Your task to perform on an android device: Open accessibility settings Image 0: 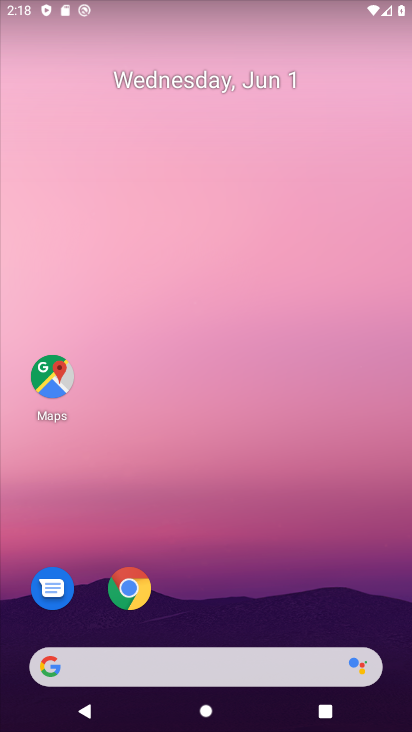
Step 0: drag from (266, 502) to (194, 19)
Your task to perform on an android device: Open accessibility settings Image 1: 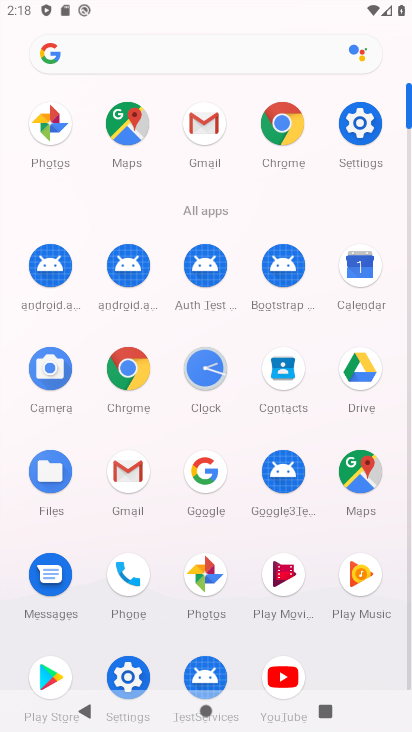
Step 1: click (364, 116)
Your task to perform on an android device: Open accessibility settings Image 2: 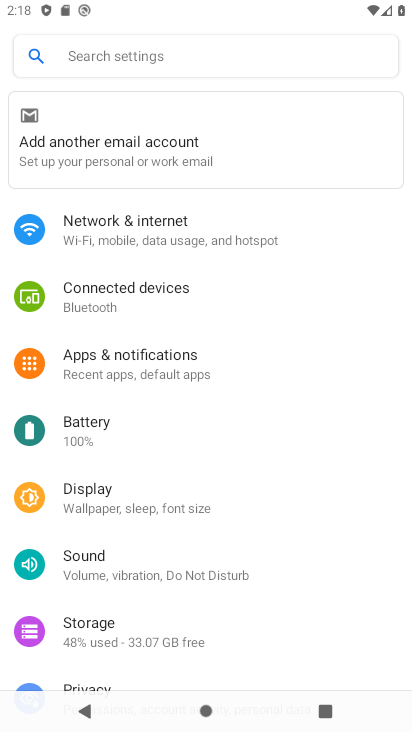
Step 2: drag from (239, 608) to (236, 280)
Your task to perform on an android device: Open accessibility settings Image 3: 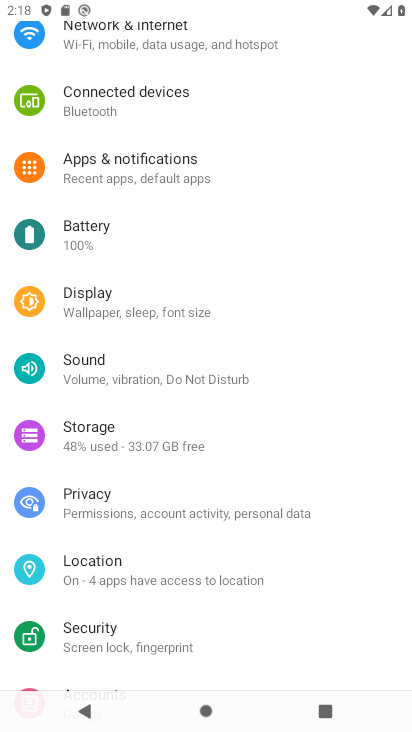
Step 3: drag from (215, 618) to (214, 276)
Your task to perform on an android device: Open accessibility settings Image 4: 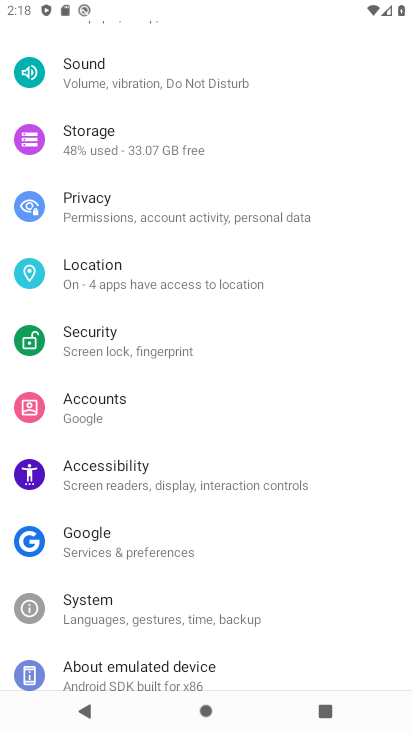
Step 4: click (115, 466)
Your task to perform on an android device: Open accessibility settings Image 5: 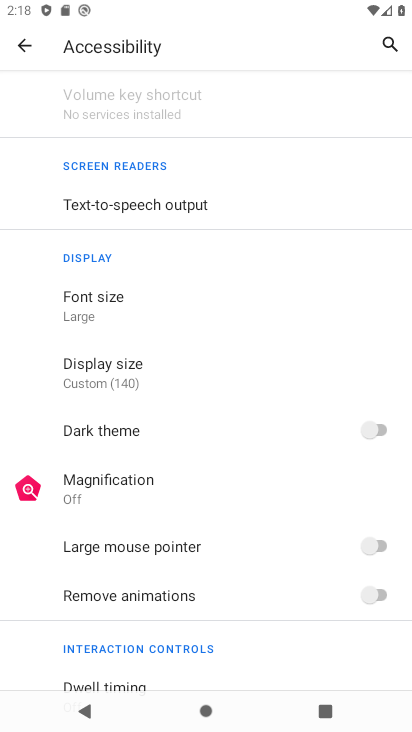
Step 5: task complete